Your task to perform on an android device: Open my contact list Image 0: 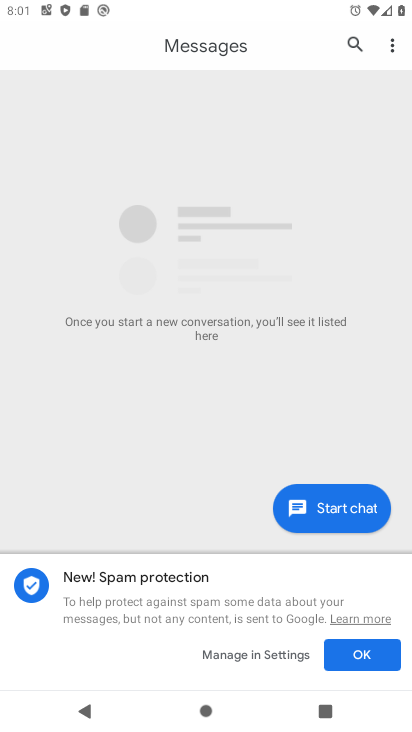
Step 0: press home button
Your task to perform on an android device: Open my contact list Image 1: 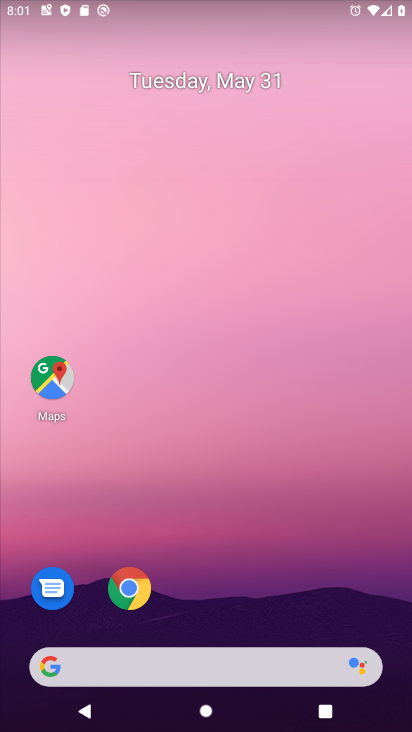
Step 1: drag from (222, 643) to (271, 183)
Your task to perform on an android device: Open my contact list Image 2: 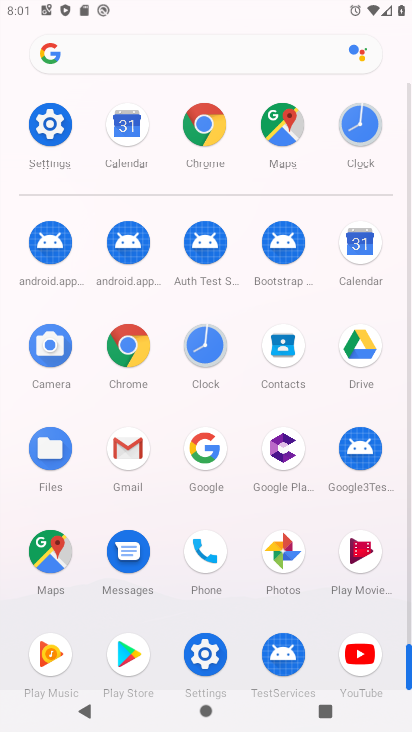
Step 2: click (278, 355)
Your task to perform on an android device: Open my contact list Image 3: 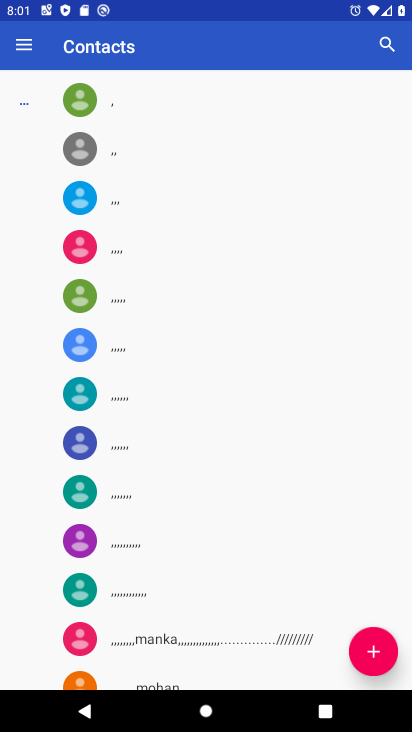
Step 3: task complete